Your task to perform on an android device: manage bookmarks in the chrome app Image 0: 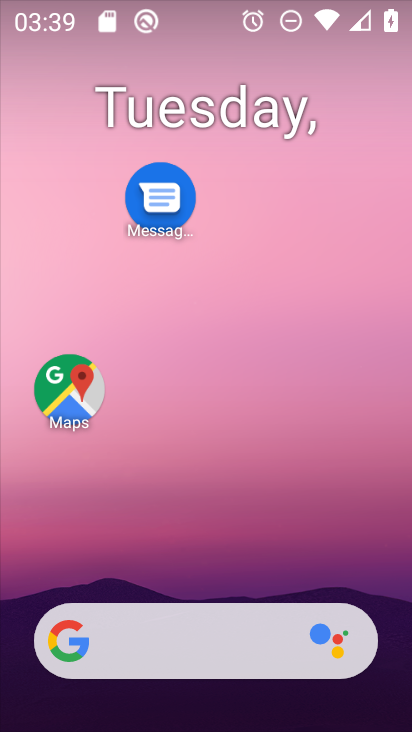
Step 0: drag from (236, 577) to (276, 236)
Your task to perform on an android device: manage bookmarks in the chrome app Image 1: 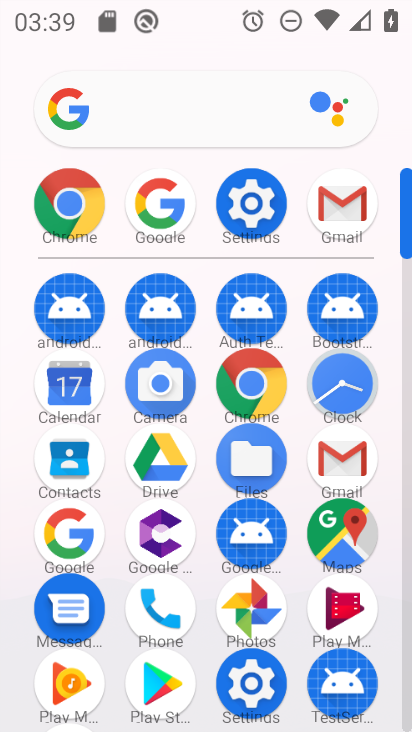
Step 1: click (83, 223)
Your task to perform on an android device: manage bookmarks in the chrome app Image 2: 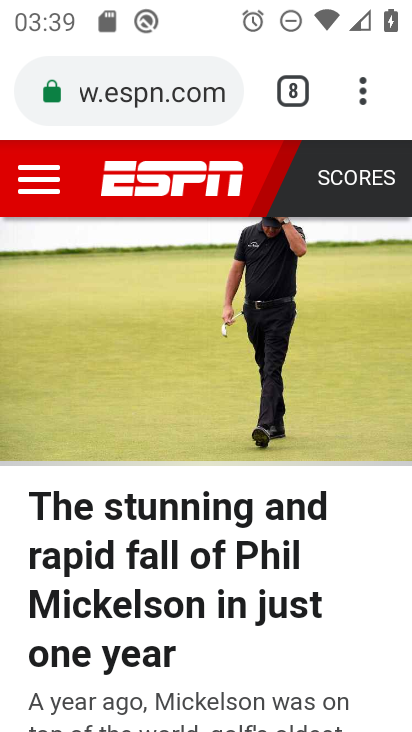
Step 2: task complete